Your task to perform on an android device: Open Yahoo.com Image 0: 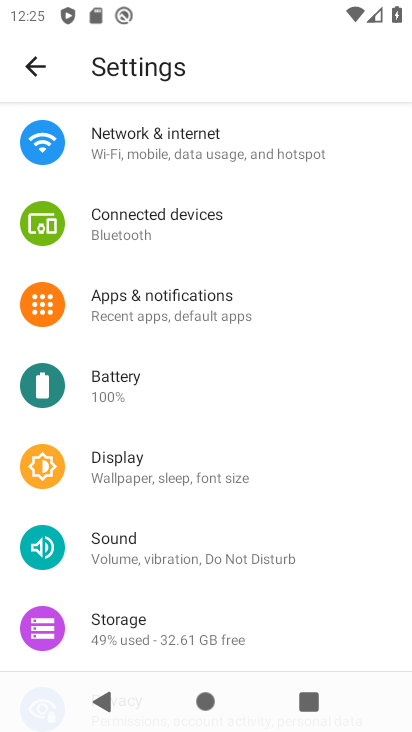
Step 0: press home button
Your task to perform on an android device: Open Yahoo.com Image 1: 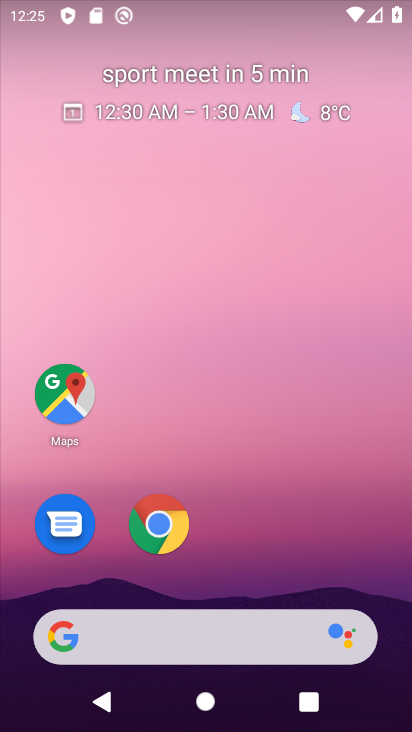
Step 1: click (272, 638)
Your task to perform on an android device: Open Yahoo.com Image 2: 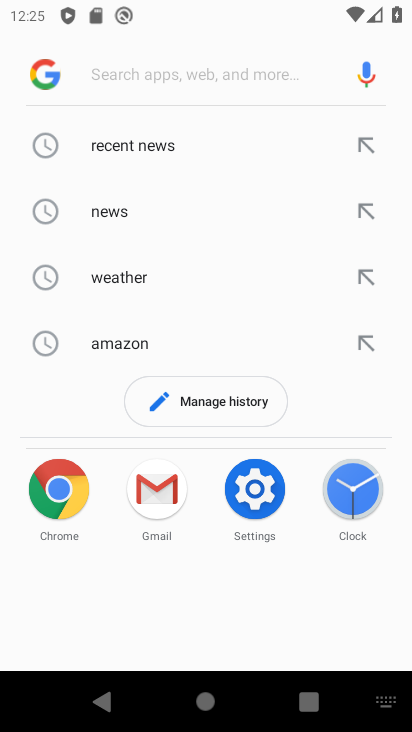
Step 2: type "yahoo.com"
Your task to perform on an android device: Open Yahoo.com Image 3: 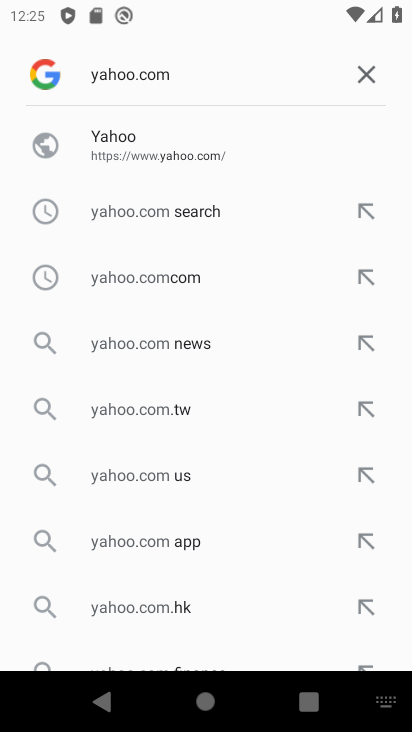
Step 3: click (119, 135)
Your task to perform on an android device: Open Yahoo.com Image 4: 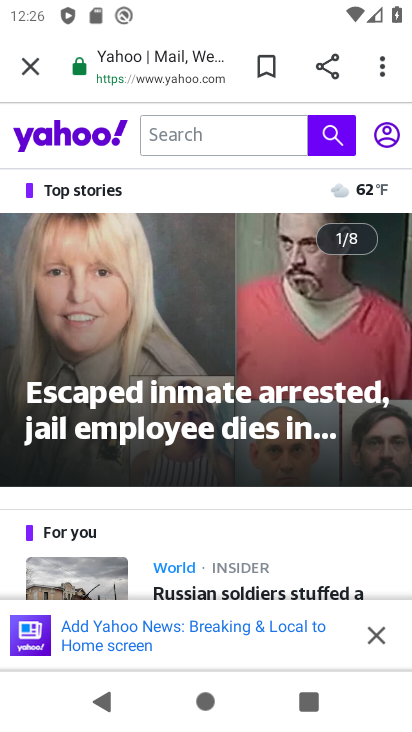
Step 4: task complete